Your task to perform on an android device: Go to internet settings Image 0: 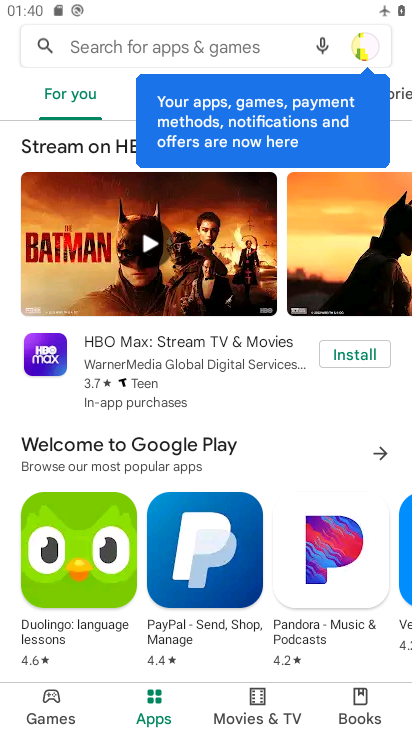
Step 0: press home button
Your task to perform on an android device: Go to internet settings Image 1: 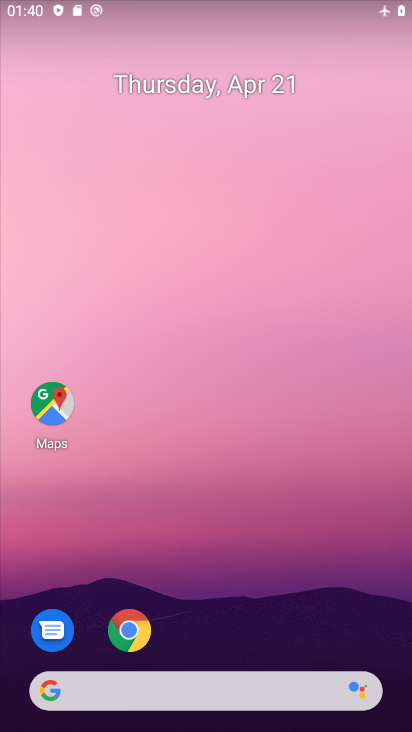
Step 1: drag from (223, 635) to (254, 130)
Your task to perform on an android device: Go to internet settings Image 2: 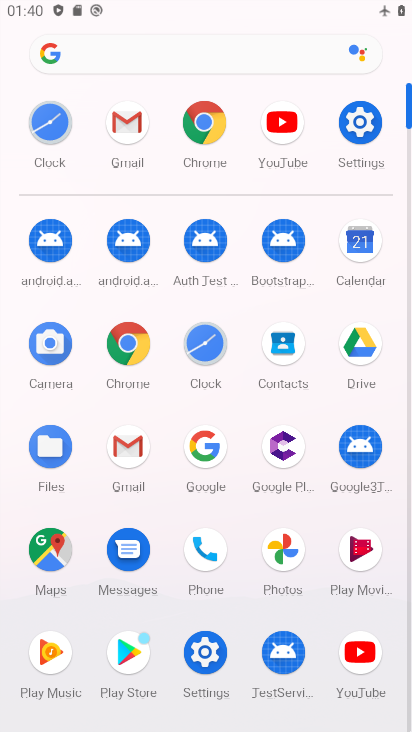
Step 2: click (350, 150)
Your task to perform on an android device: Go to internet settings Image 3: 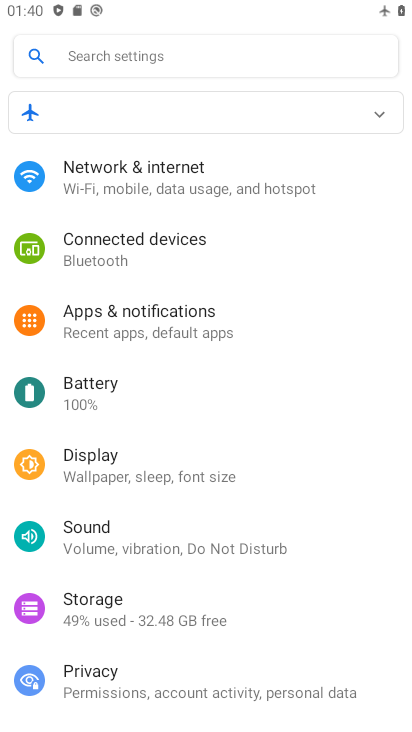
Step 3: click (177, 169)
Your task to perform on an android device: Go to internet settings Image 4: 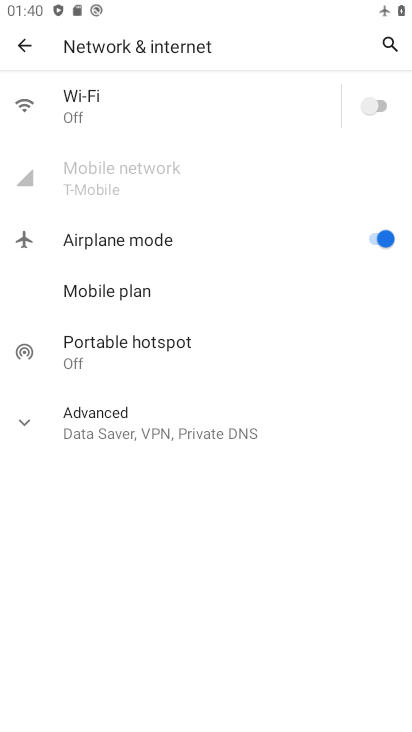
Step 4: task complete